Your task to perform on an android device: turn pop-ups on in chrome Image 0: 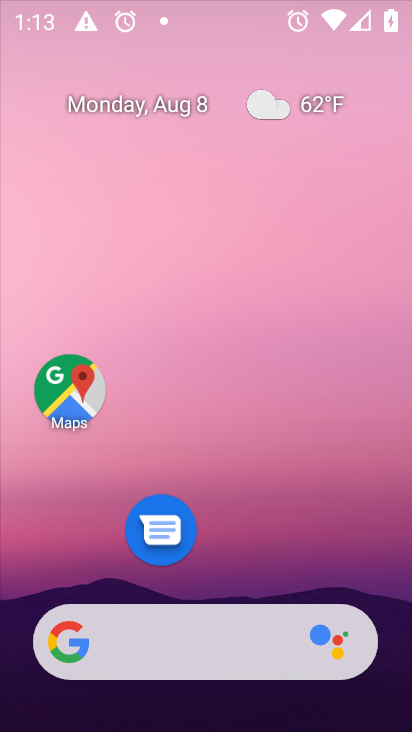
Step 0: drag from (234, 582) to (231, 155)
Your task to perform on an android device: turn pop-ups on in chrome Image 1: 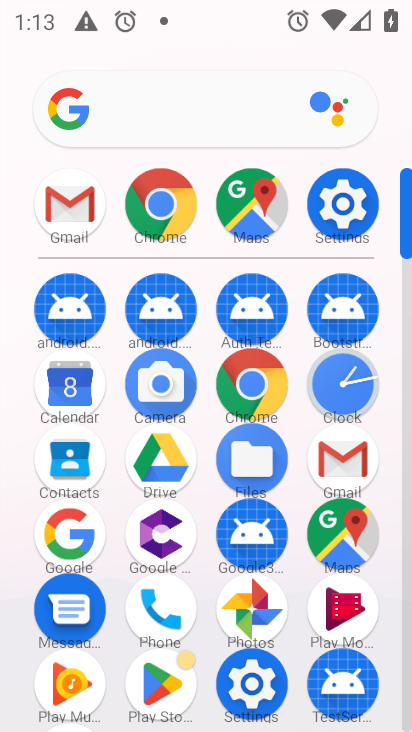
Step 1: click (256, 389)
Your task to perform on an android device: turn pop-ups on in chrome Image 2: 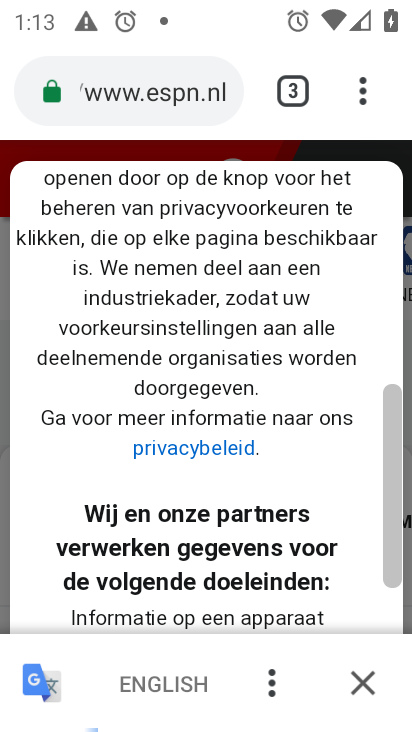
Step 2: drag from (361, 95) to (272, 560)
Your task to perform on an android device: turn pop-ups on in chrome Image 3: 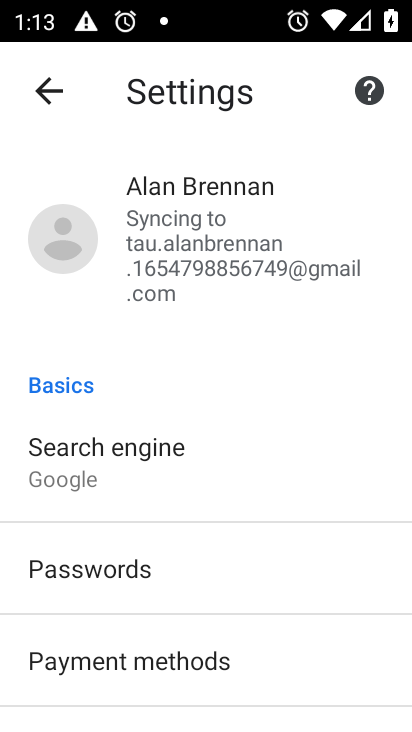
Step 3: drag from (147, 683) to (150, 431)
Your task to perform on an android device: turn pop-ups on in chrome Image 4: 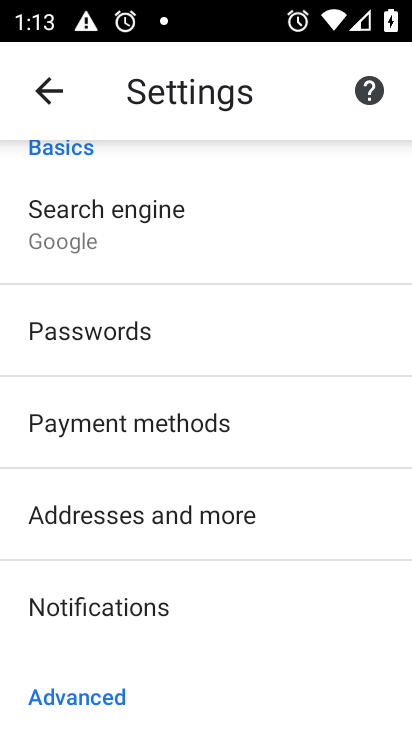
Step 4: drag from (160, 669) to (171, 429)
Your task to perform on an android device: turn pop-ups on in chrome Image 5: 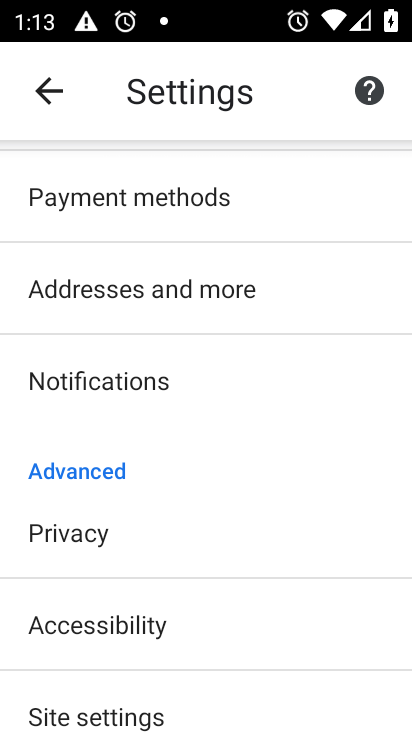
Step 5: click (84, 713)
Your task to perform on an android device: turn pop-ups on in chrome Image 6: 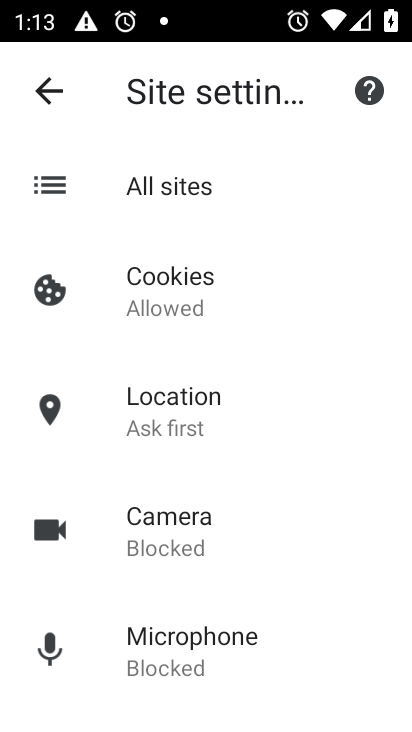
Step 6: drag from (191, 688) to (191, 293)
Your task to perform on an android device: turn pop-ups on in chrome Image 7: 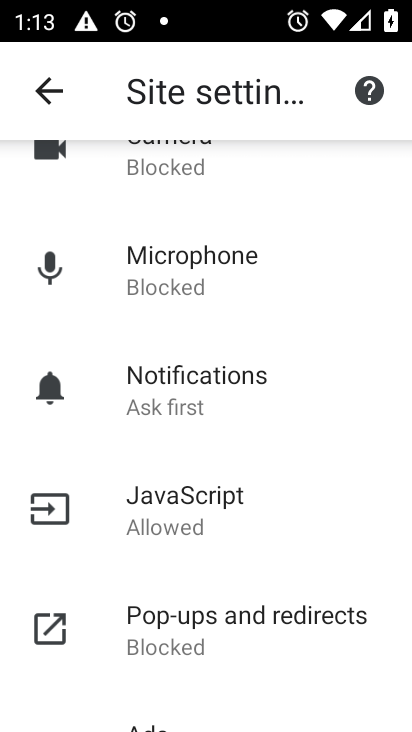
Step 7: click (172, 636)
Your task to perform on an android device: turn pop-ups on in chrome Image 8: 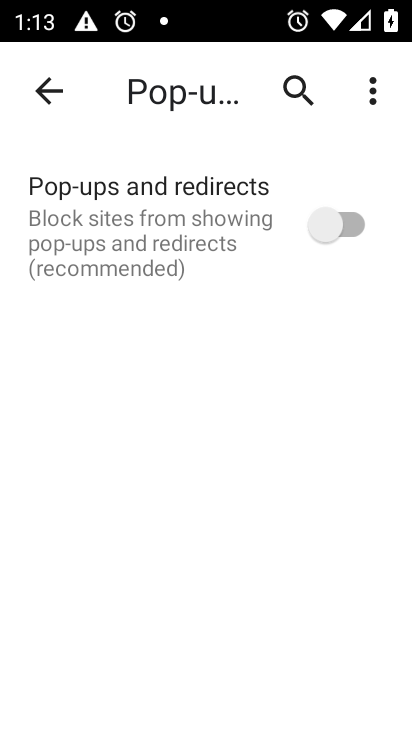
Step 8: click (348, 220)
Your task to perform on an android device: turn pop-ups on in chrome Image 9: 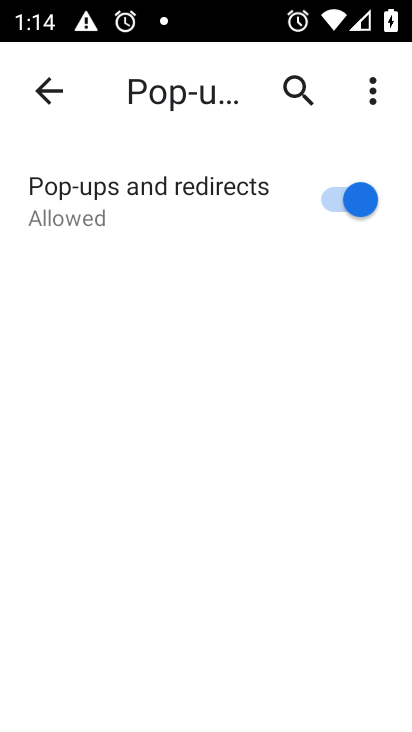
Step 9: task complete